Your task to perform on an android device: Open the web browser Image 0: 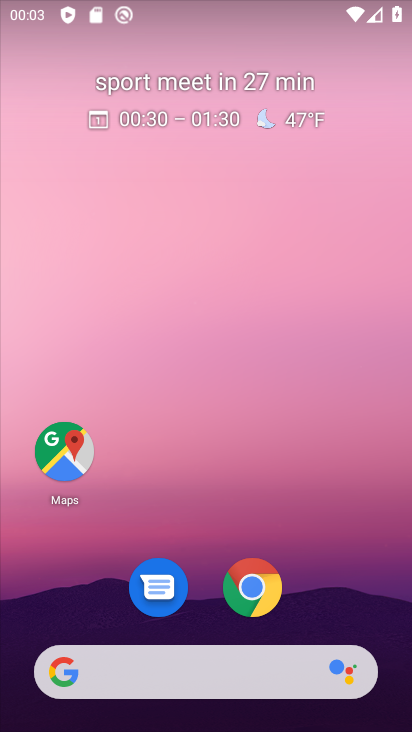
Step 0: drag from (388, 643) to (357, 156)
Your task to perform on an android device: Open the web browser Image 1: 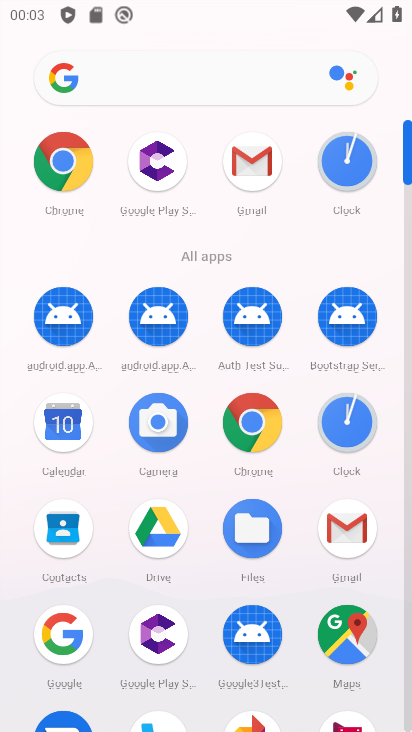
Step 1: click (63, 158)
Your task to perform on an android device: Open the web browser Image 2: 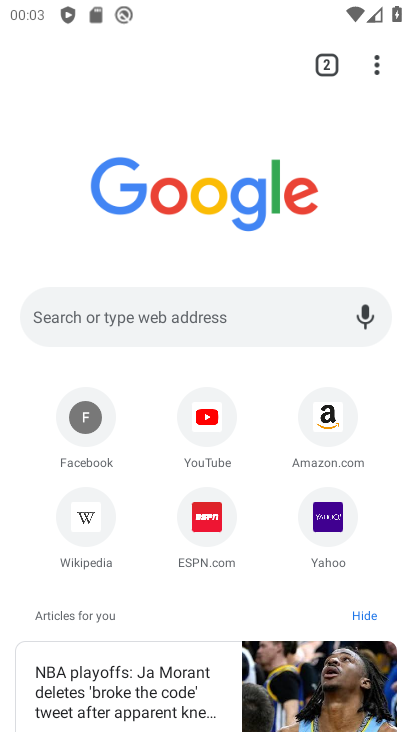
Step 2: task complete